Your task to perform on an android device: Open Chrome and go to the settings page Image 0: 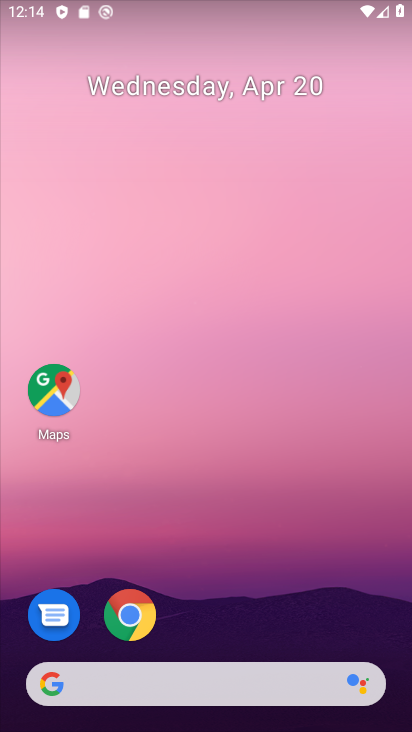
Step 0: click (127, 618)
Your task to perform on an android device: Open Chrome and go to the settings page Image 1: 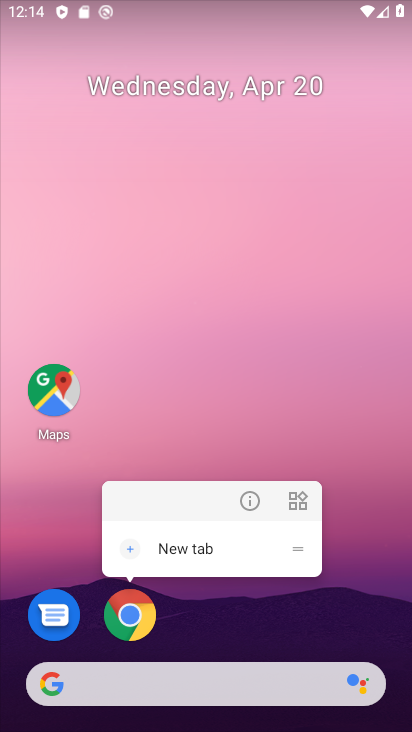
Step 1: click (128, 621)
Your task to perform on an android device: Open Chrome and go to the settings page Image 2: 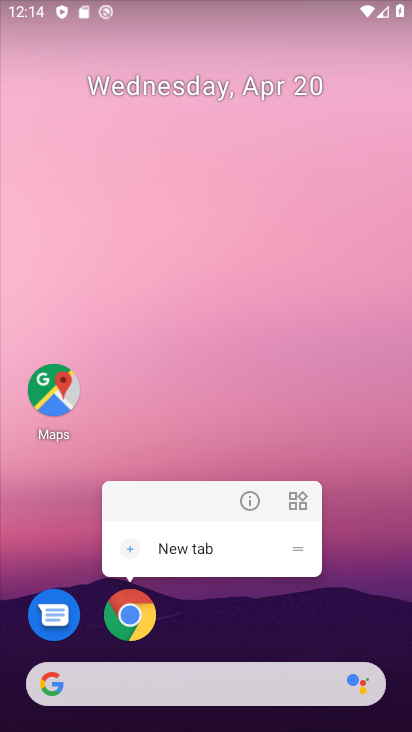
Step 2: click (129, 623)
Your task to perform on an android device: Open Chrome and go to the settings page Image 3: 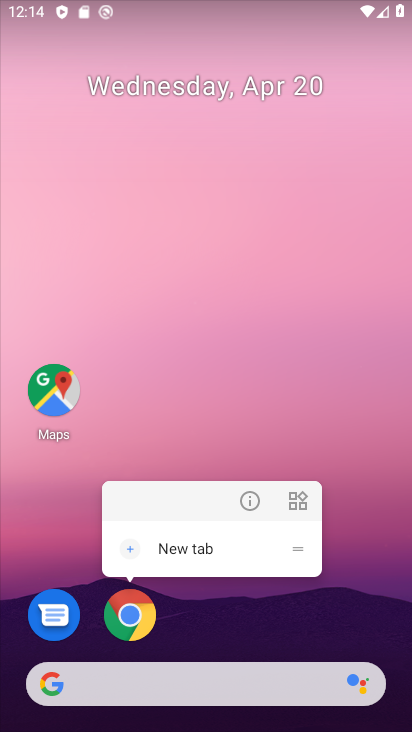
Step 3: click (138, 641)
Your task to perform on an android device: Open Chrome and go to the settings page Image 4: 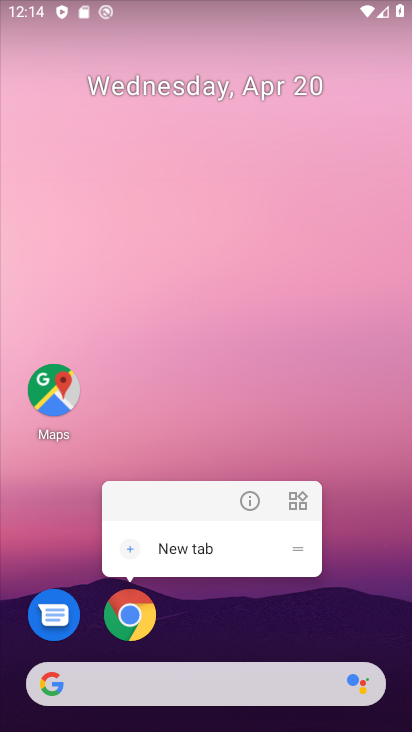
Step 4: click (138, 621)
Your task to perform on an android device: Open Chrome and go to the settings page Image 5: 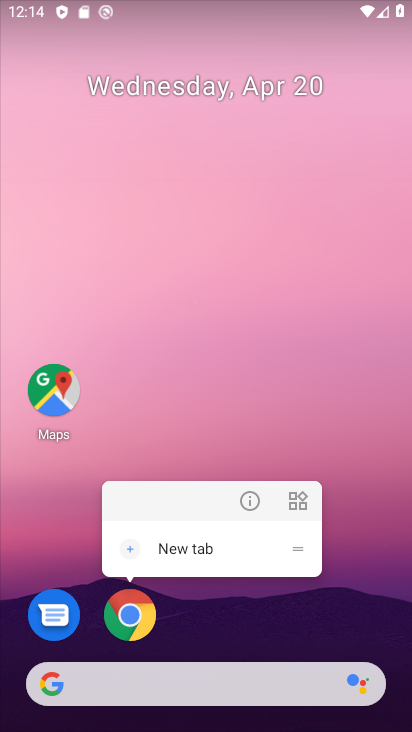
Step 5: click (140, 608)
Your task to perform on an android device: Open Chrome and go to the settings page Image 6: 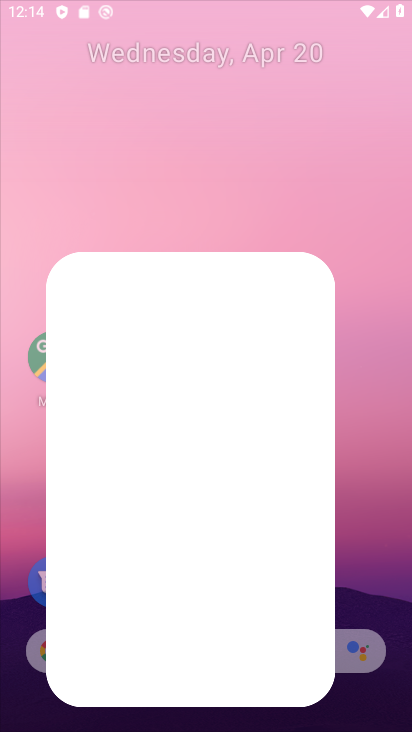
Step 6: click (141, 608)
Your task to perform on an android device: Open Chrome and go to the settings page Image 7: 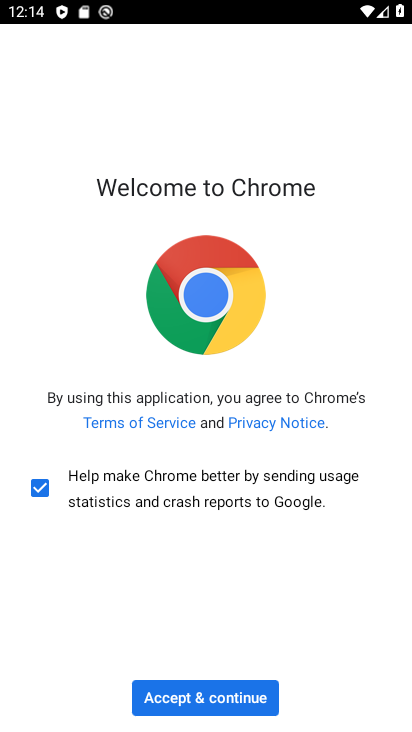
Step 7: click (237, 695)
Your task to perform on an android device: Open Chrome and go to the settings page Image 8: 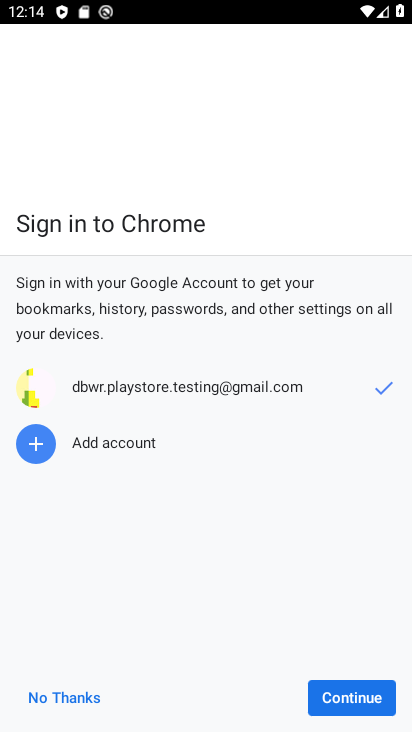
Step 8: click (354, 695)
Your task to perform on an android device: Open Chrome and go to the settings page Image 9: 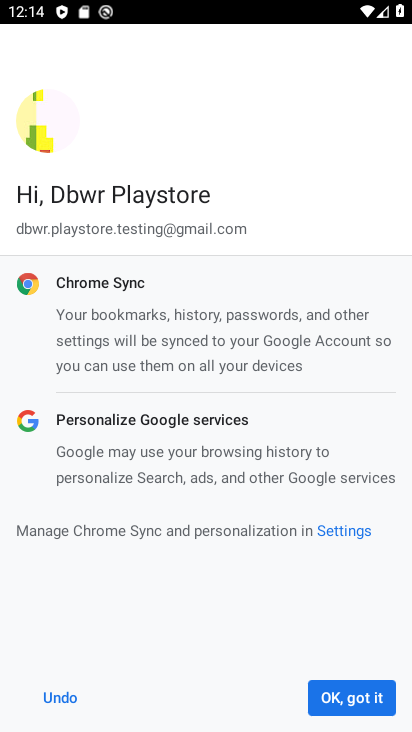
Step 9: click (355, 687)
Your task to perform on an android device: Open Chrome and go to the settings page Image 10: 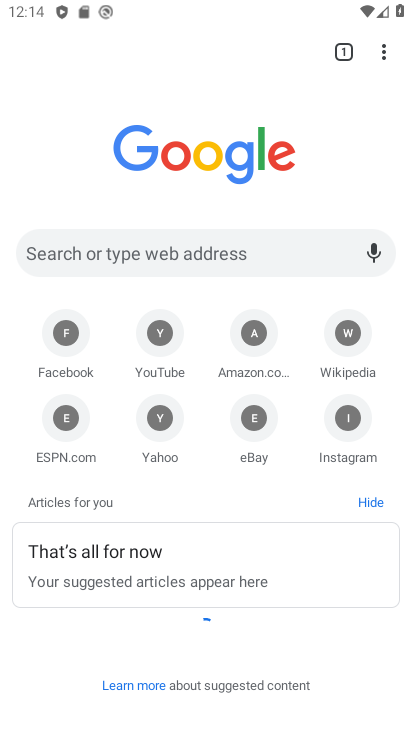
Step 10: task complete